Your task to perform on an android device: turn off location history Image 0: 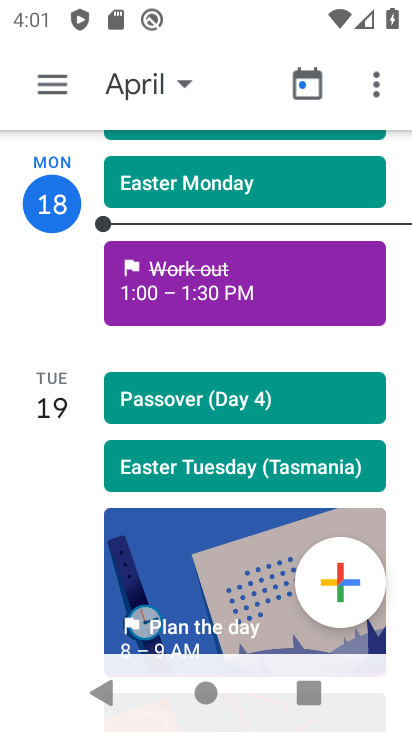
Step 0: press back button
Your task to perform on an android device: turn off location history Image 1: 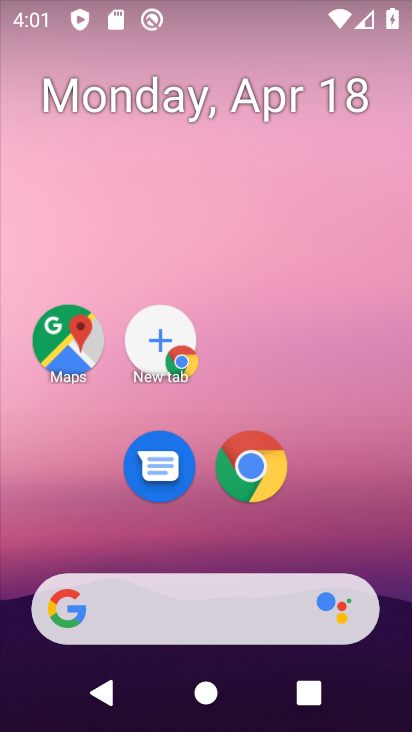
Step 1: drag from (317, 533) to (209, 47)
Your task to perform on an android device: turn off location history Image 2: 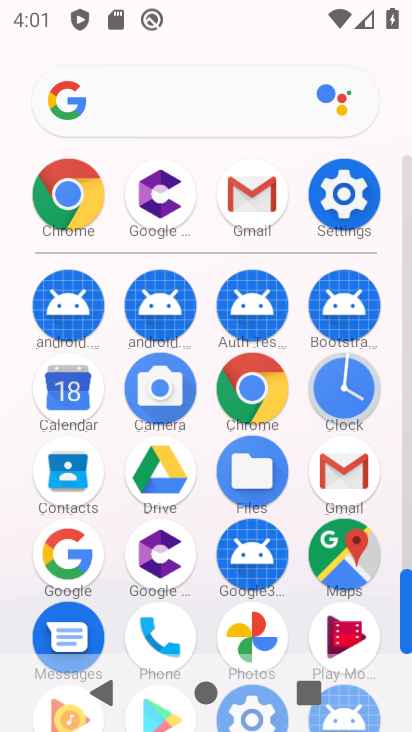
Step 2: drag from (9, 495) to (3, 229)
Your task to perform on an android device: turn off location history Image 3: 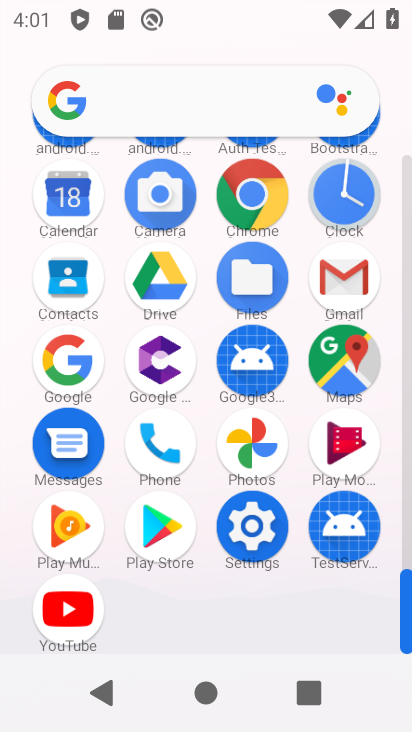
Step 3: click (254, 523)
Your task to perform on an android device: turn off location history Image 4: 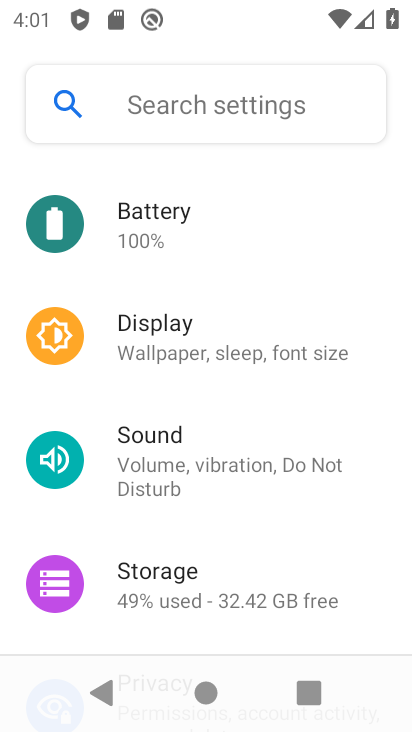
Step 4: drag from (297, 505) to (269, 198)
Your task to perform on an android device: turn off location history Image 5: 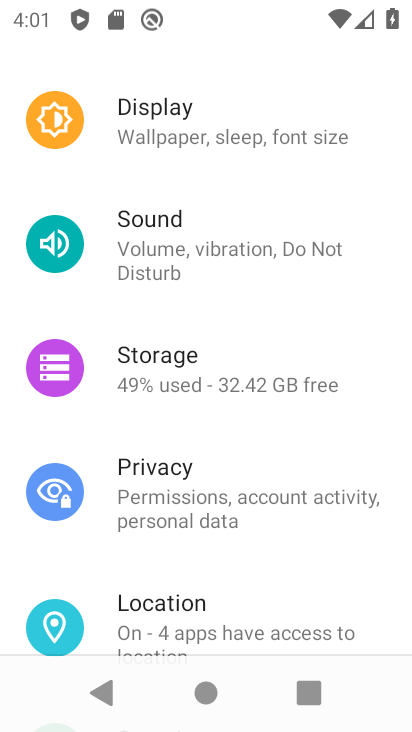
Step 5: click (228, 607)
Your task to perform on an android device: turn off location history Image 6: 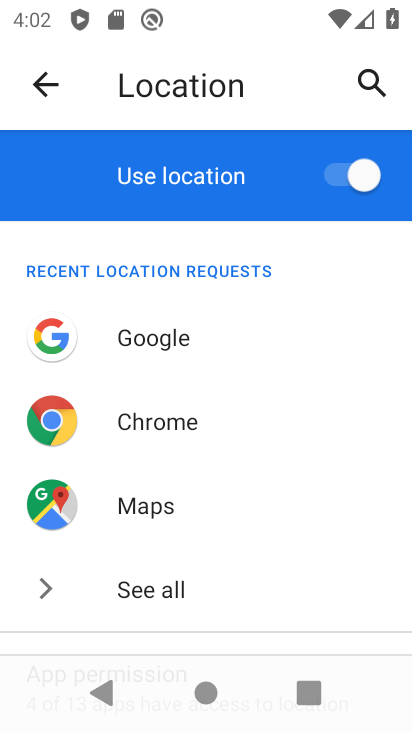
Step 6: click (349, 171)
Your task to perform on an android device: turn off location history Image 7: 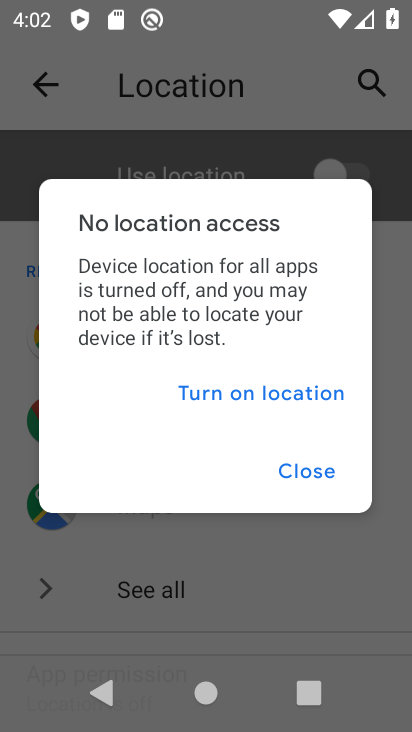
Step 7: click (285, 467)
Your task to perform on an android device: turn off location history Image 8: 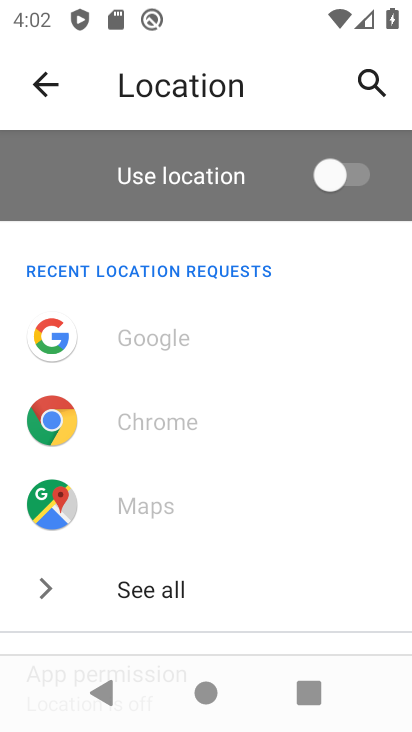
Step 8: task complete